Your task to perform on an android device: toggle priority inbox in the gmail app Image 0: 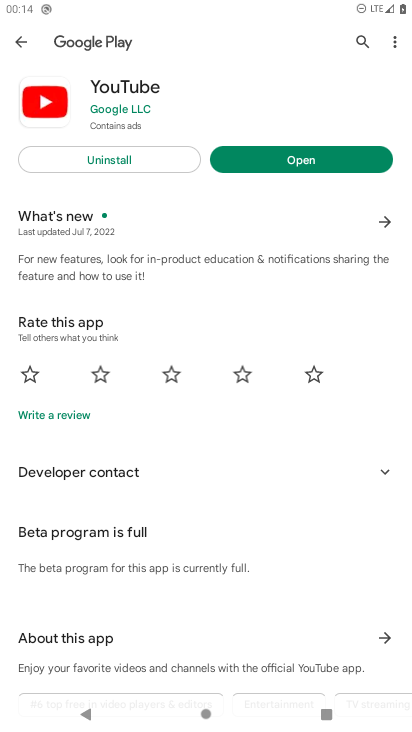
Step 0: press home button
Your task to perform on an android device: toggle priority inbox in the gmail app Image 1: 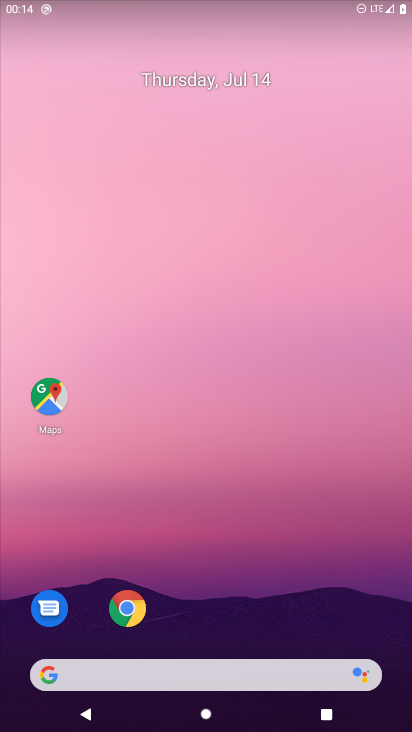
Step 1: drag from (307, 618) to (286, 234)
Your task to perform on an android device: toggle priority inbox in the gmail app Image 2: 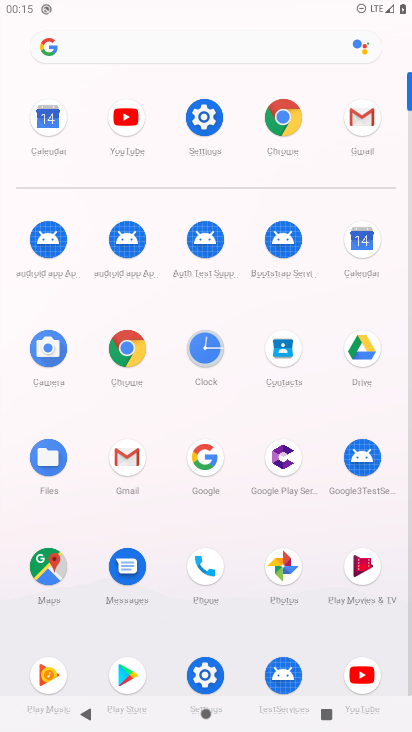
Step 2: click (117, 439)
Your task to perform on an android device: toggle priority inbox in the gmail app Image 3: 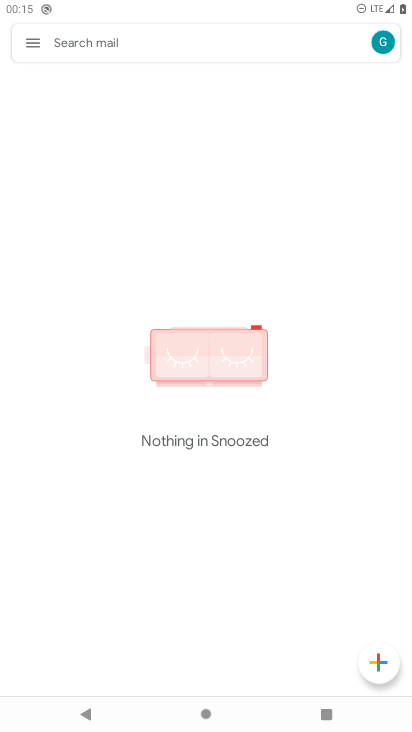
Step 3: click (32, 40)
Your task to perform on an android device: toggle priority inbox in the gmail app Image 4: 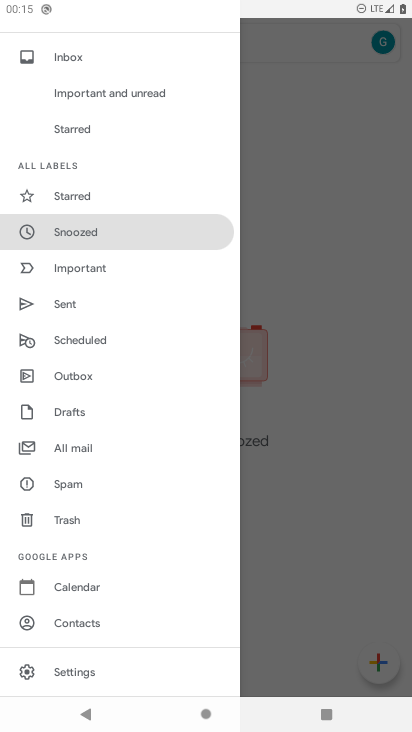
Step 4: click (68, 676)
Your task to perform on an android device: toggle priority inbox in the gmail app Image 5: 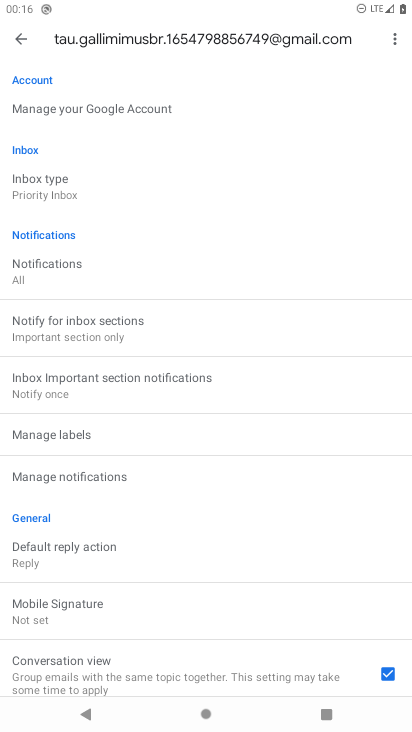
Step 5: click (50, 193)
Your task to perform on an android device: toggle priority inbox in the gmail app Image 6: 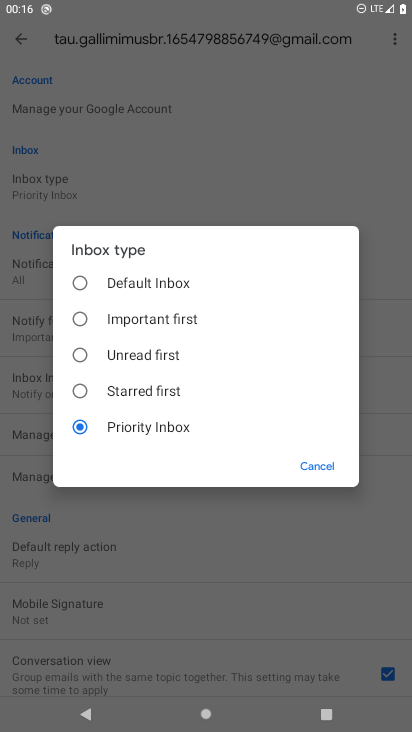
Step 6: click (137, 293)
Your task to perform on an android device: toggle priority inbox in the gmail app Image 7: 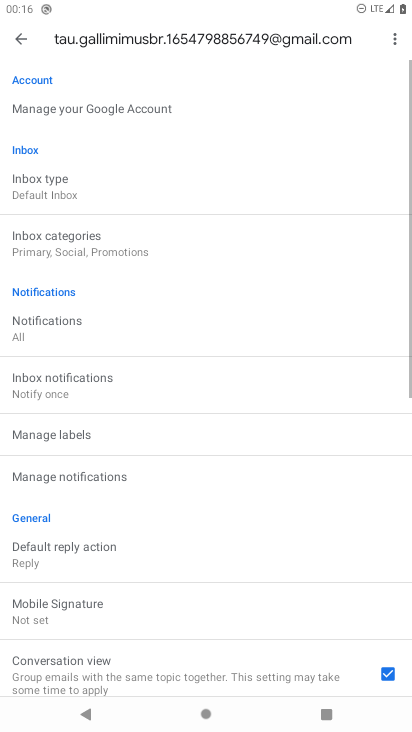
Step 7: task complete